Your task to perform on an android device: show emergency info Image 0: 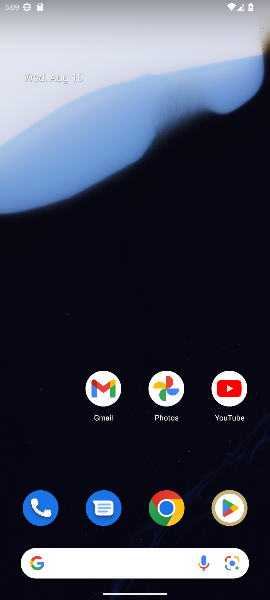
Step 0: press home button
Your task to perform on an android device: show emergency info Image 1: 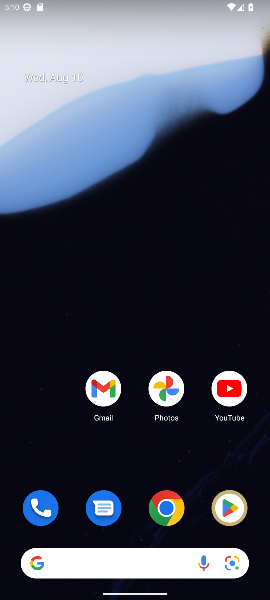
Step 1: drag from (140, 516) to (257, 74)
Your task to perform on an android device: show emergency info Image 2: 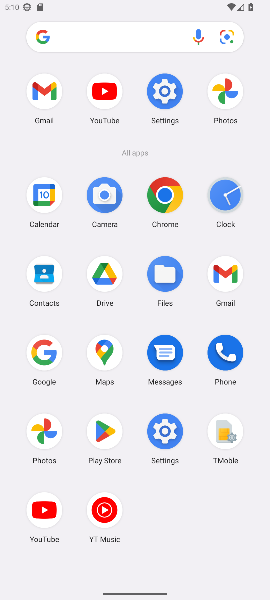
Step 2: click (170, 81)
Your task to perform on an android device: show emergency info Image 3: 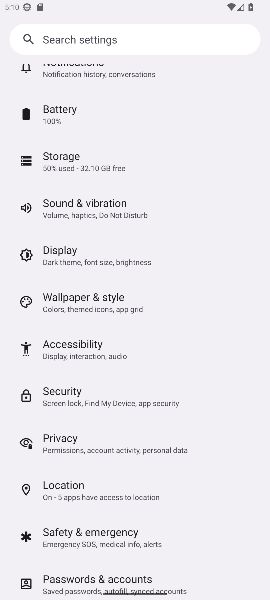
Step 3: drag from (200, 564) to (151, 11)
Your task to perform on an android device: show emergency info Image 4: 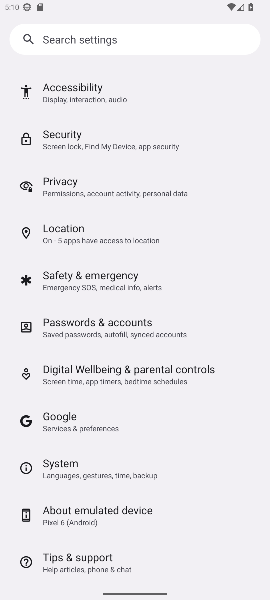
Step 4: click (83, 505)
Your task to perform on an android device: show emergency info Image 5: 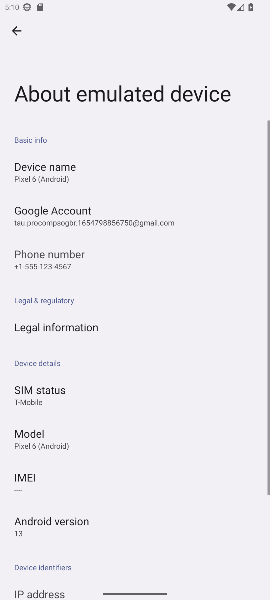
Step 5: drag from (178, 504) to (213, 63)
Your task to perform on an android device: show emergency info Image 6: 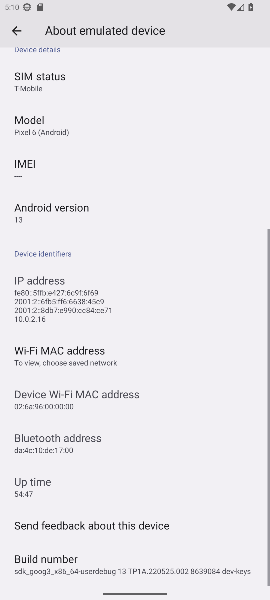
Step 6: drag from (156, 508) to (108, 42)
Your task to perform on an android device: show emergency info Image 7: 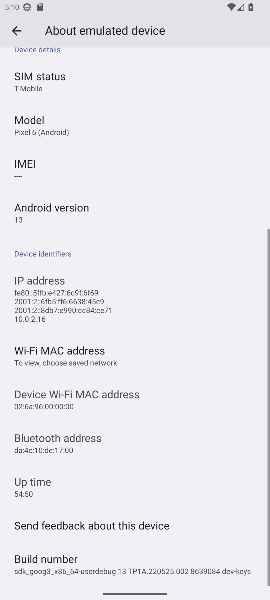
Step 7: drag from (198, 155) to (265, 168)
Your task to perform on an android device: show emergency info Image 8: 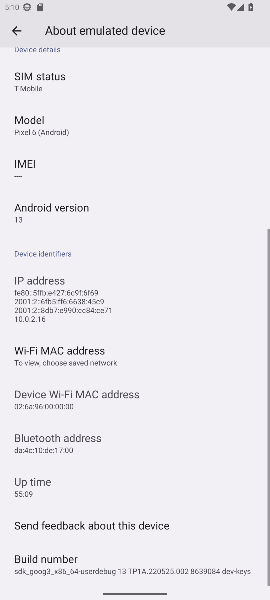
Step 8: drag from (251, 199) to (205, 585)
Your task to perform on an android device: show emergency info Image 9: 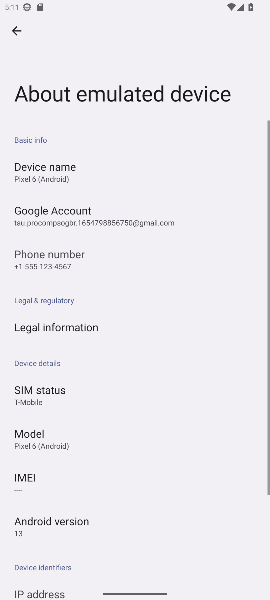
Step 9: click (38, 329)
Your task to perform on an android device: show emergency info Image 10: 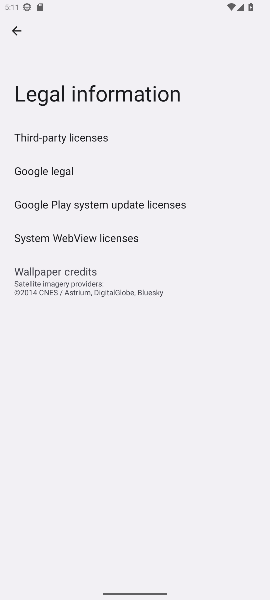
Step 10: task complete